Your task to perform on an android device: turn off location history Image 0: 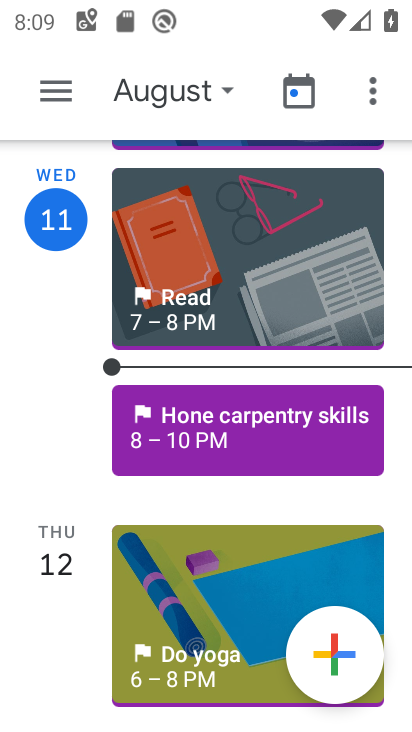
Step 0: press home button
Your task to perform on an android device: turn off location history Image 1: 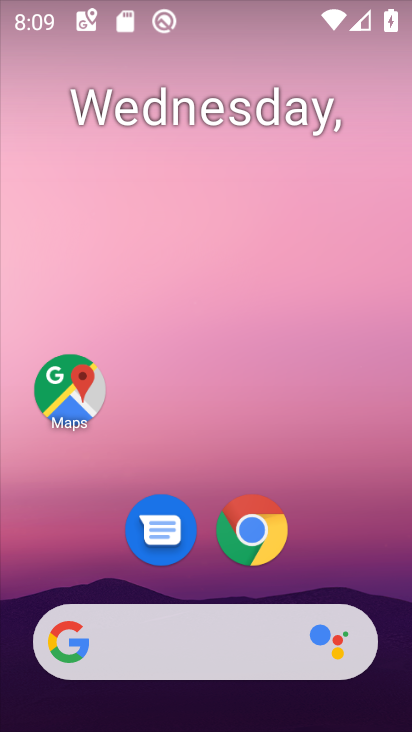
Step 1: drag from (396, 646) to (246, 53)
Your task to perform on an android device: turn off location history Image 2: 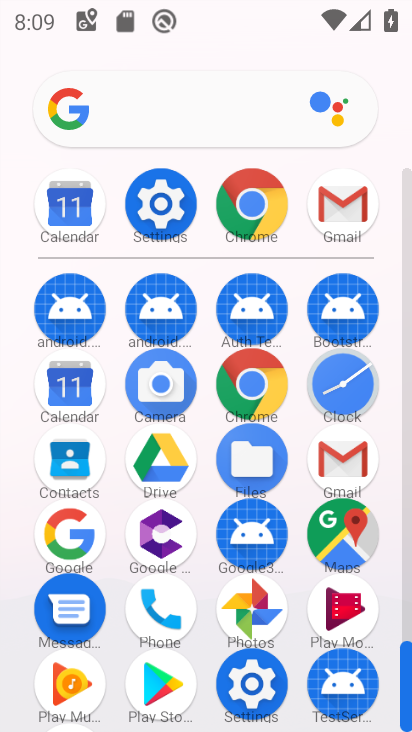
Step 2: click (167, 196)
Your task to perform on an android device: turn off location history Image 3: 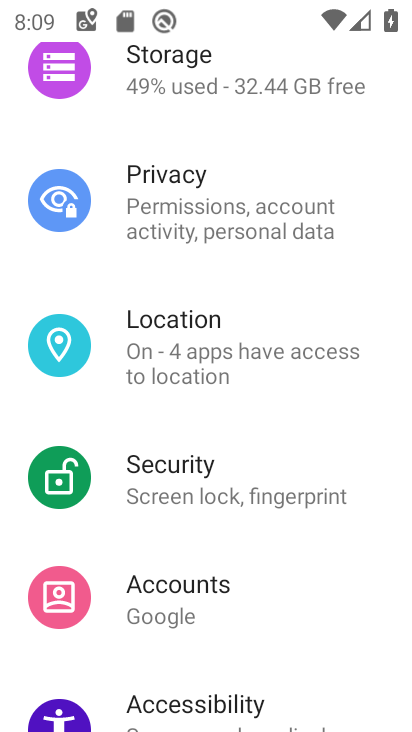
Step 3: click (194, 373)
Your task to perform on an android device: turn off location history Image 4: 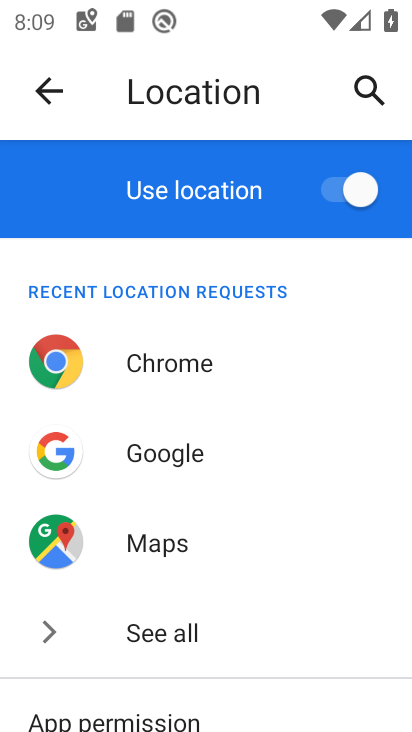
Step 4: drag from (206, 649) to (222, 125)
Your task to perform on an android device: turn off location history Image 5: 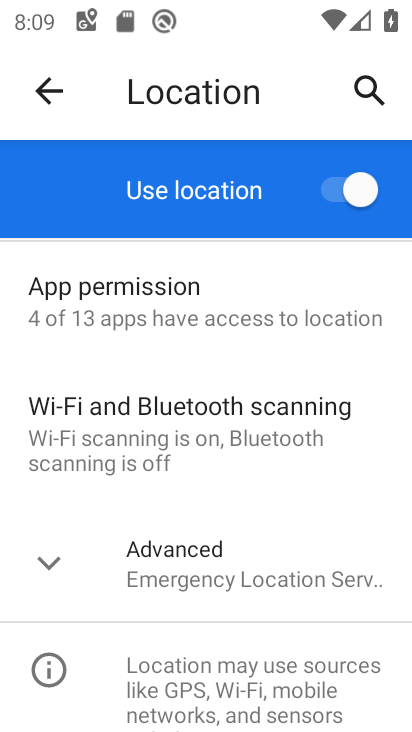
Step 5: click (73, 564)
Your task to perform on an android device: turn off location history Image 6: 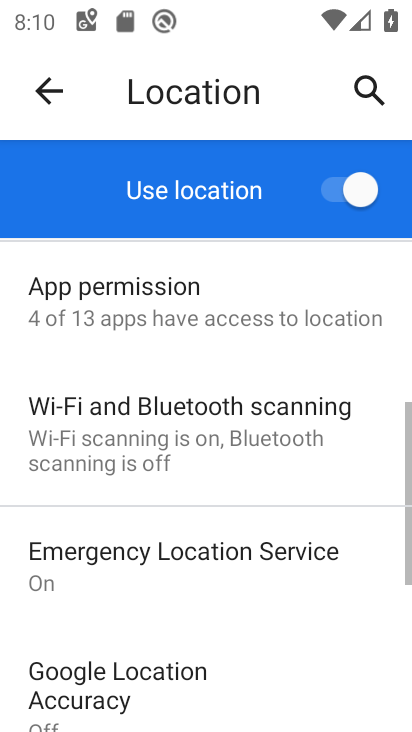
Step 6: drag from (146, 617) to (189, 252)
Your task to perform on an android device: turn off location history Image 7: 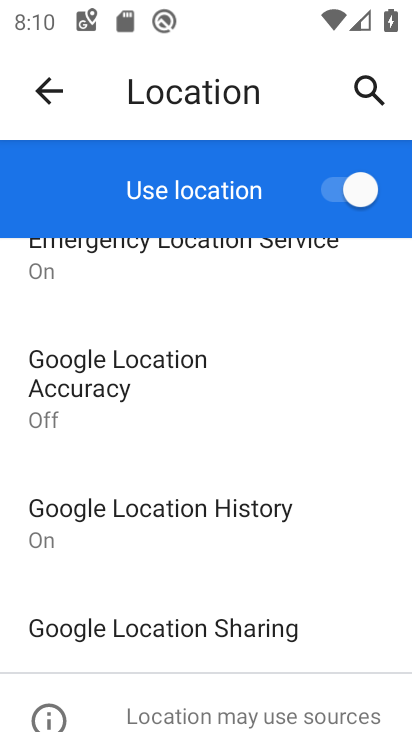
Step 7: click (207, 520)
Your task to perform on an android device: turn off location history Image 8: 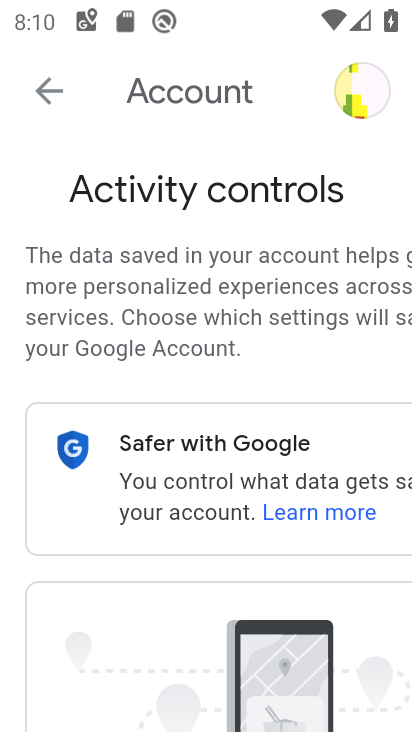
Step 8: drag from (352, 615) to (182, 25)
Your task to perform on an android device: turn off location history Image 9: 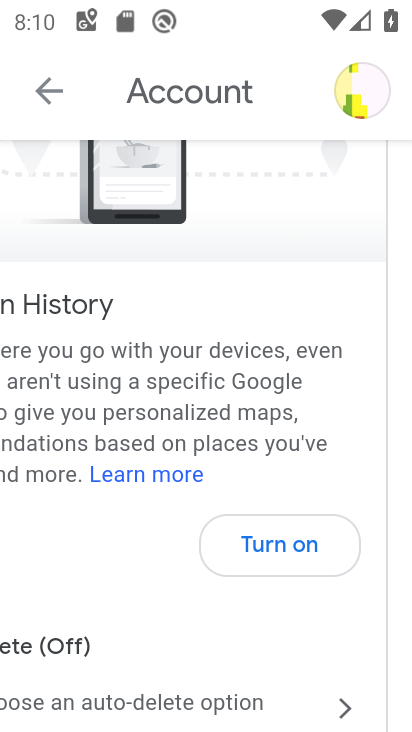
Step 9: click (241, 565)
Your task to perform on an android device: turn off location history Image 10: 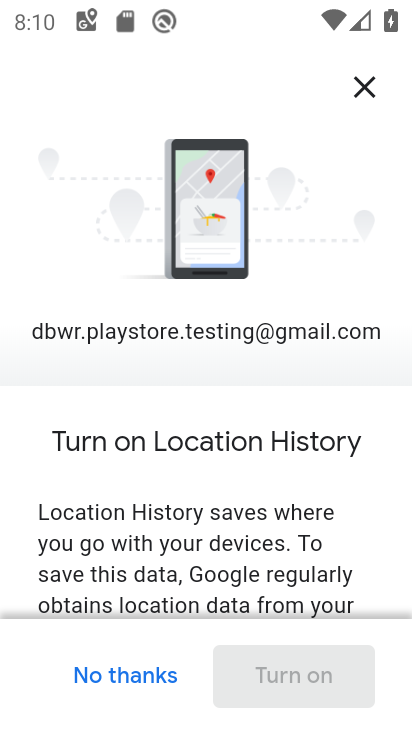
Step 10: task complete